Your task to perform on an android device: Search for flights from Helsinki to Seoul Image 0: 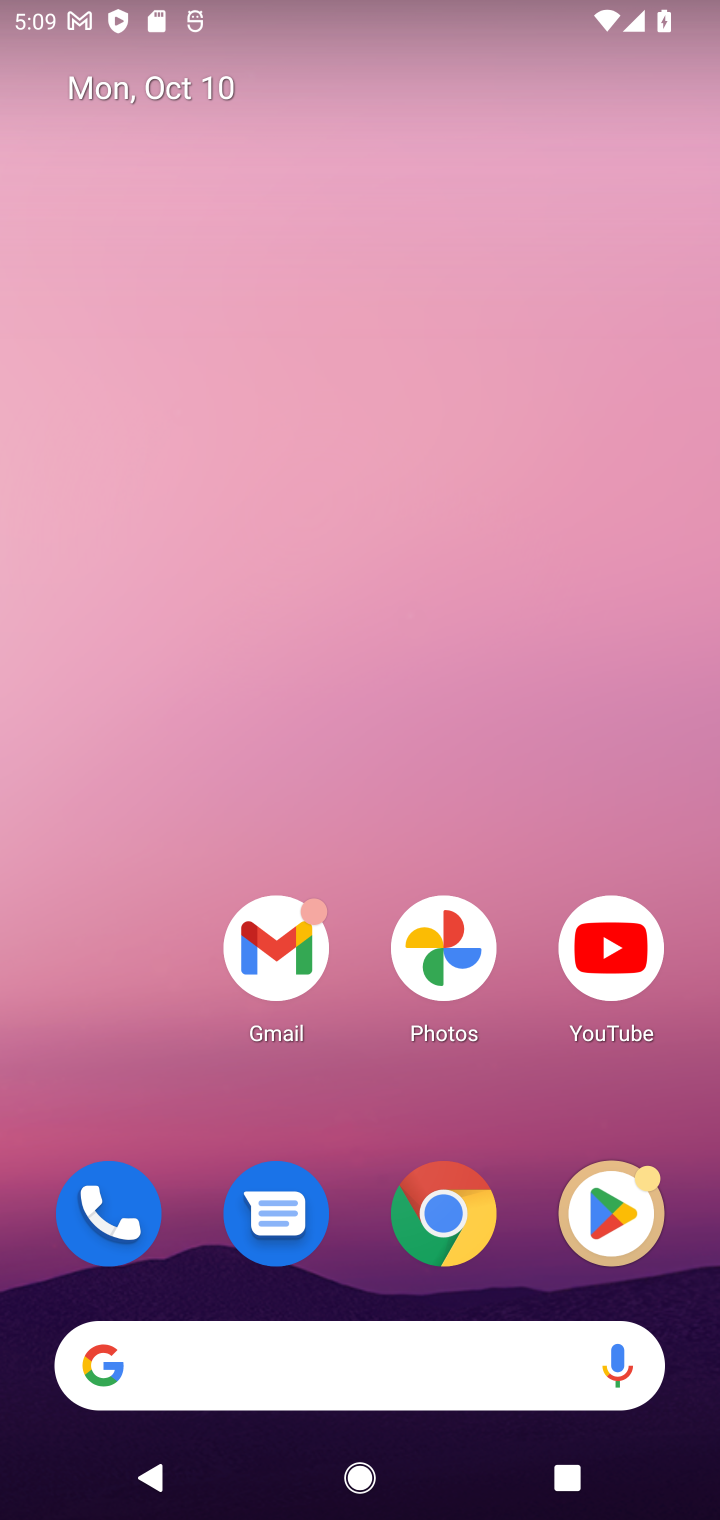
Step 0: click (250, 1368)
Your task to perform on an android device: Search for flights from Helsinki to Seoul Image 1: 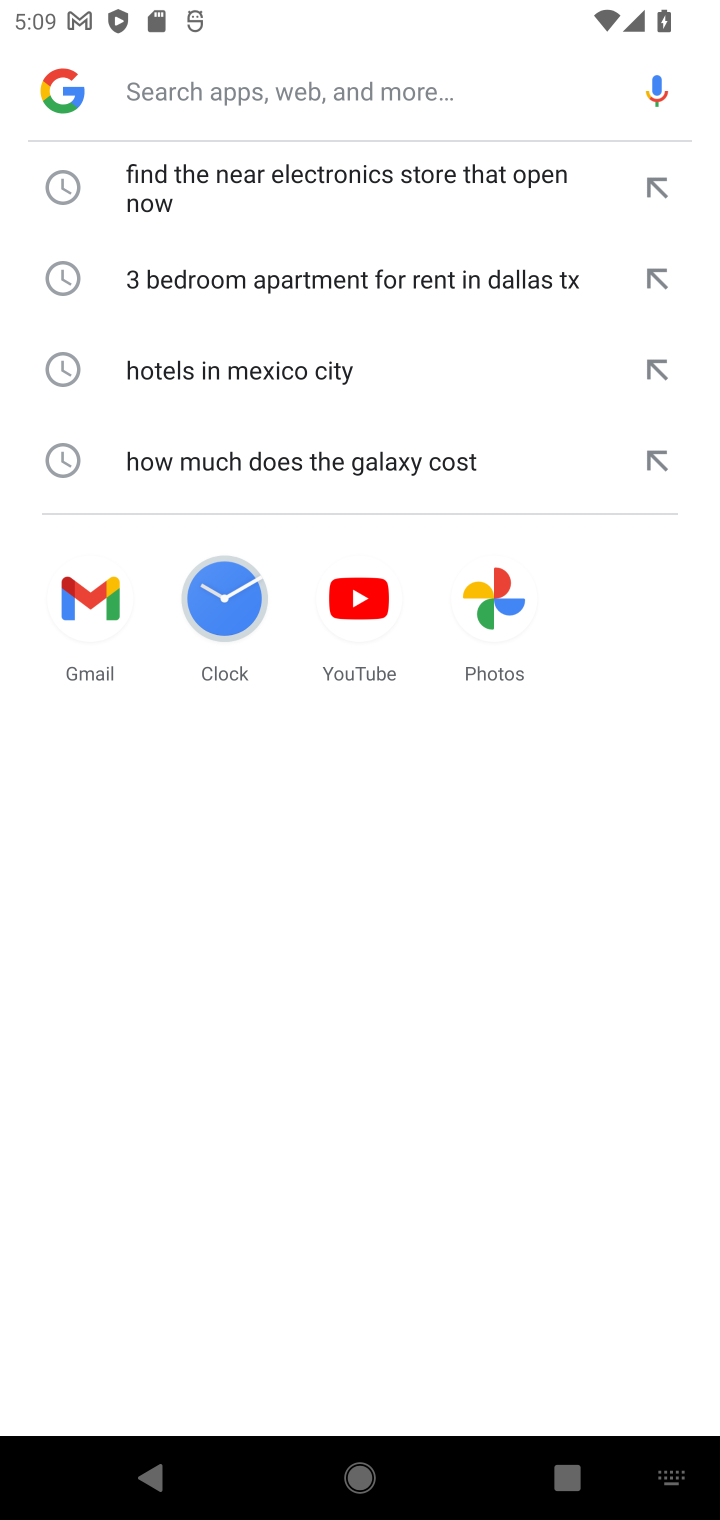
Step 1: click (168, 87)
Your task to perform on an android device: Search for flights from Helsinki to Seoul Image 2: 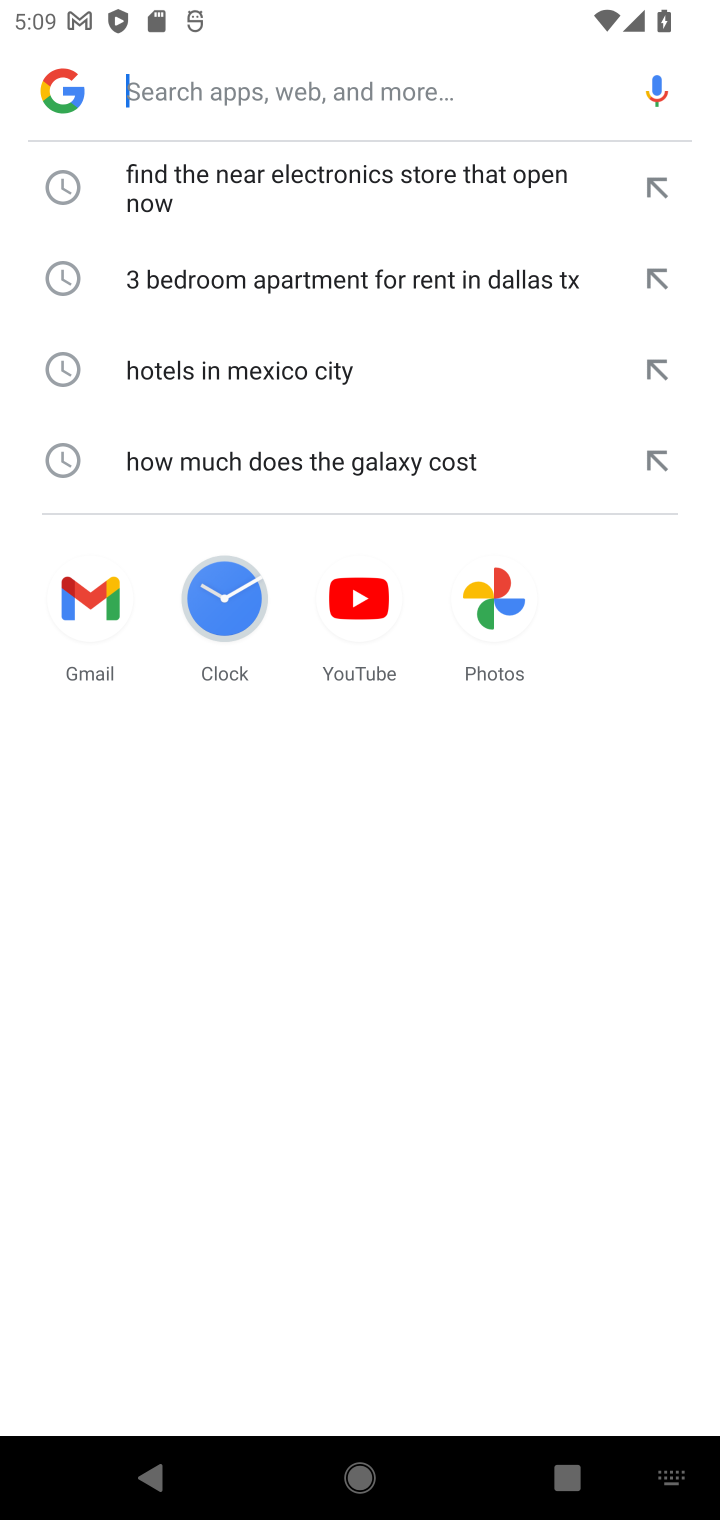
Step 2: type "flights from Helsinki to Seoul"
Your task to perform on an android device: Search for flights from Helsinki to Seoul Image 3: 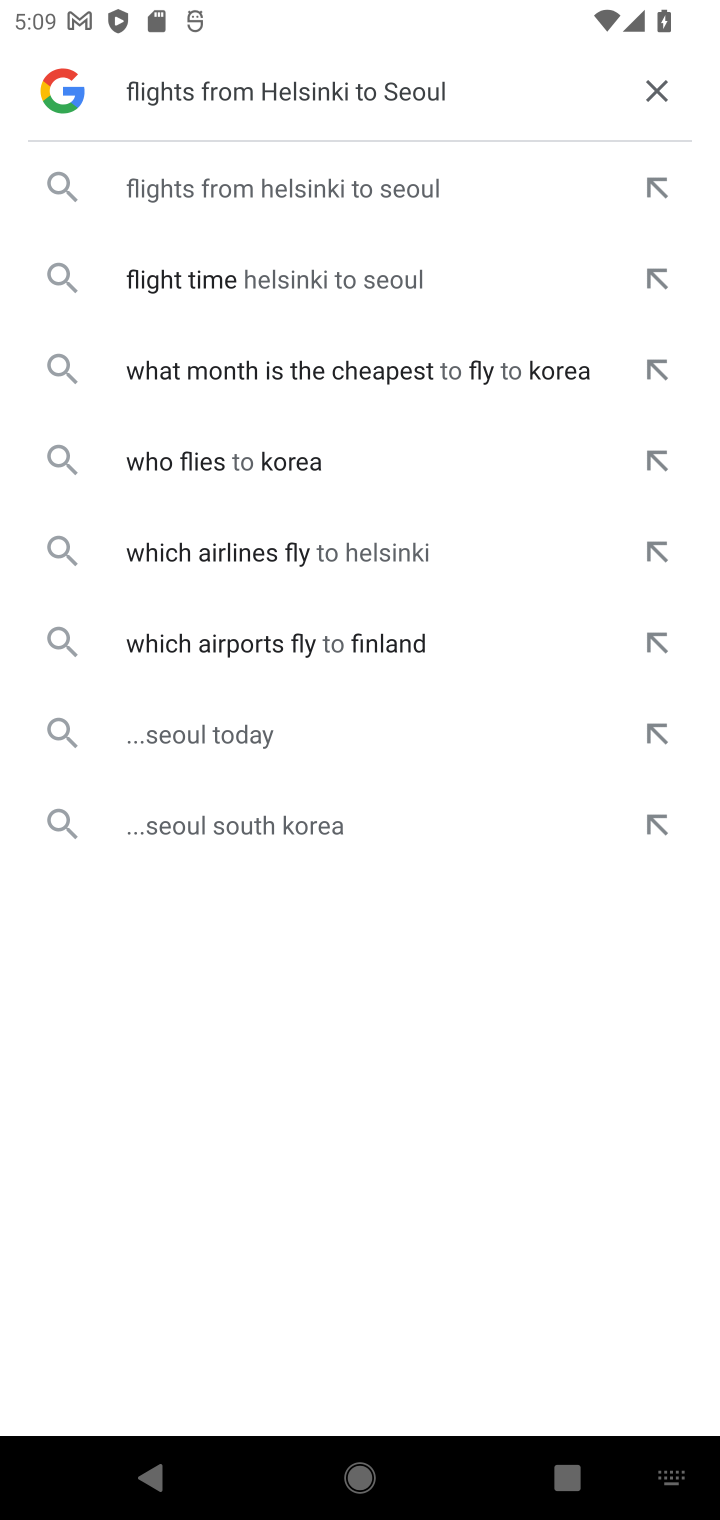
Step 3: click (307, 173)
Your task to perform on an android device: Search for flights from Helsinki to Seoul Image 4: 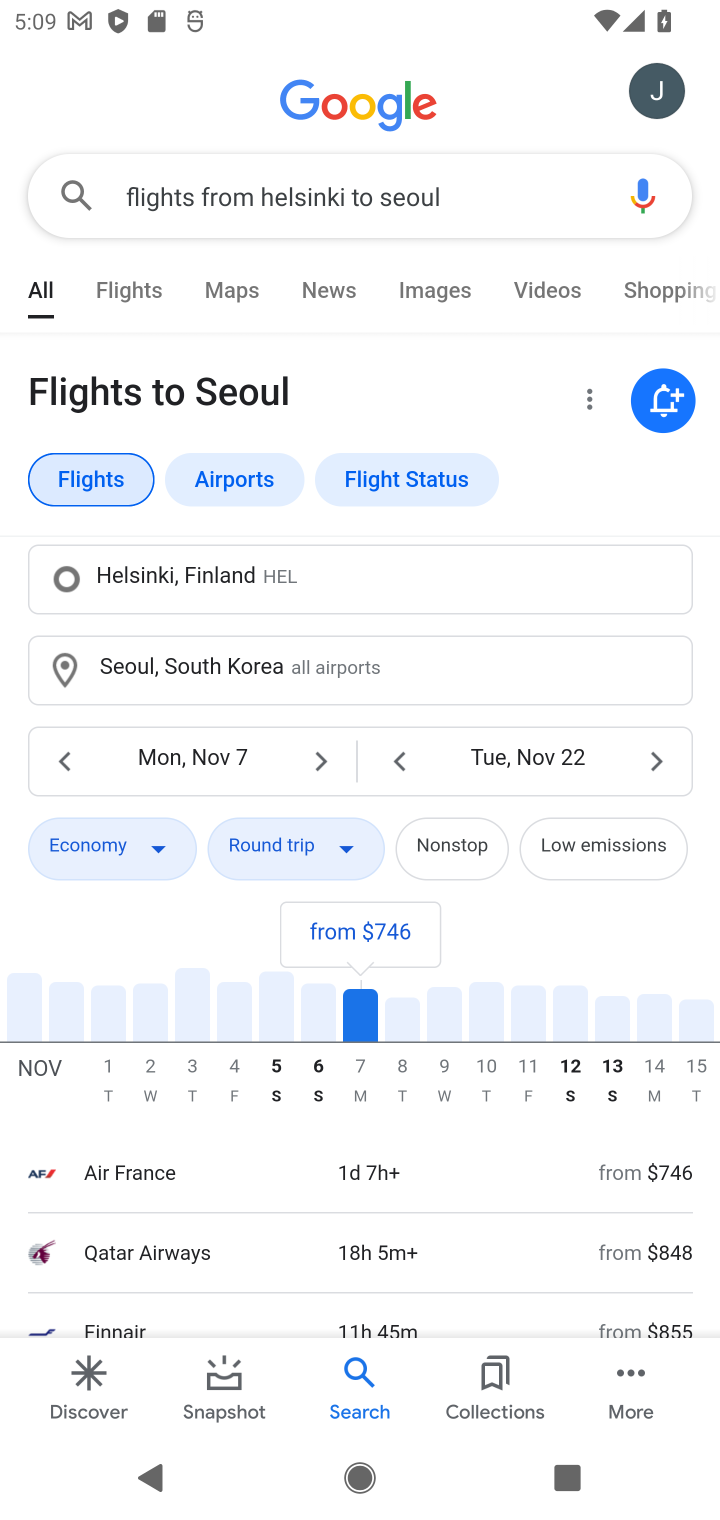
Step 4: task complete